Your task to perform on an android device: What's the weather going to be this weekend? Image 0: 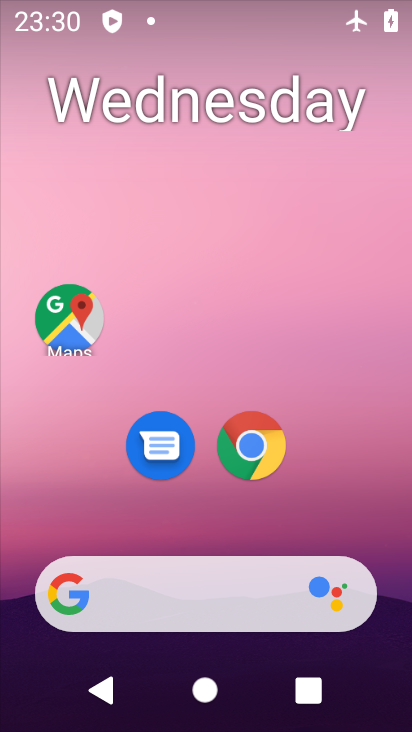
Step 0: click (216, 103)
Your task to perform on an android device: What's the weather going to be this weekend? Image 1: 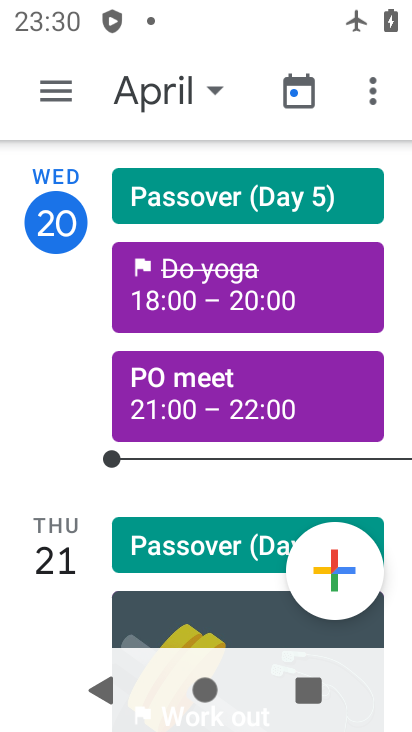
Step 1: press home button
Your task to perform on an android device: What's the weather going to be this weekend? Image 2: 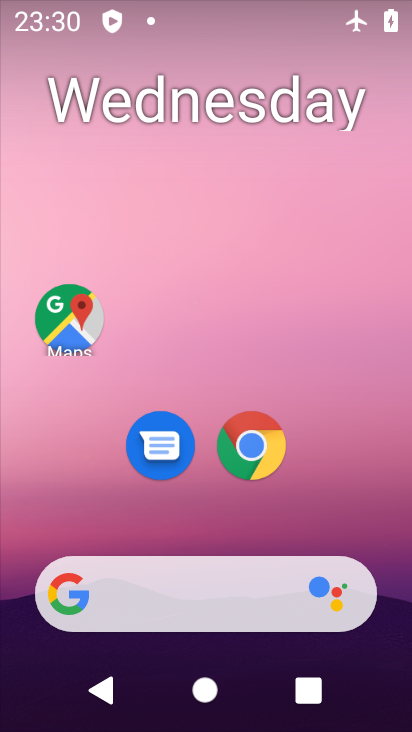
Step 2: click (172, 594)
Your task to perform on an android device: What's the weather going to be this weekend? Image 3: 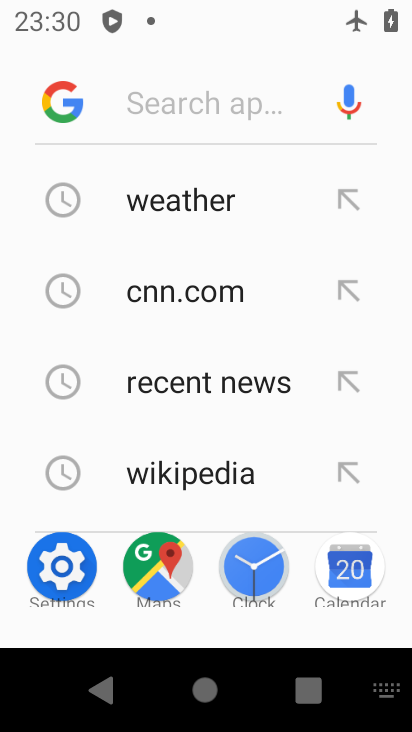
Step 3: click (161, 208)
Your task to perform on an android device: What's the weather going to be this weekend? Image 4: 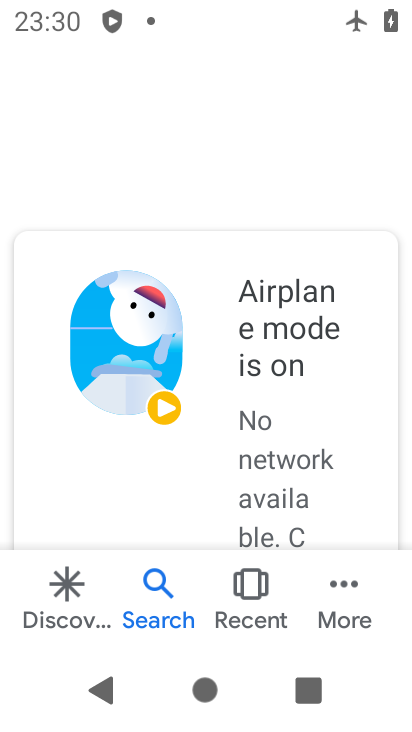
Step 4: drag from (332, 44) to (257, 628)
Your task to perform on an android device: What's the weather going to be this weekend? Image 5: 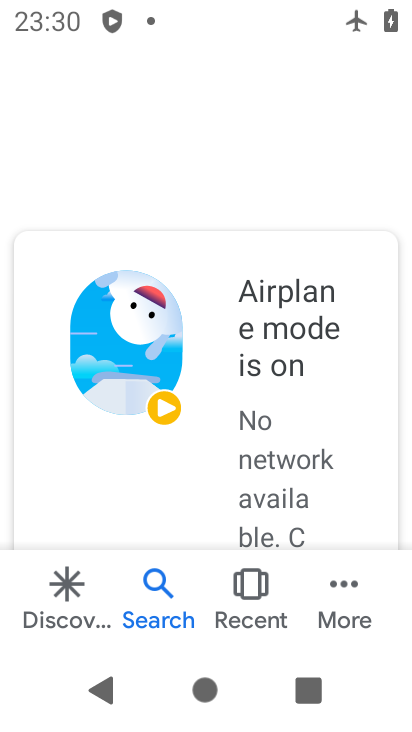
Step 5: drag from (283, 1) to (222, 467)
Your task to perform on an android device: What's the weather going to be this weekend? Image 6: 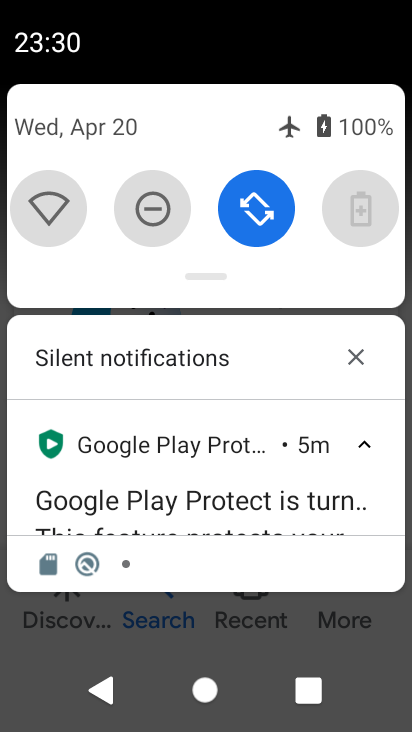
Step 6: drag from (203, 300) to (213, 723)
Your task to perform on an android device: What's the weather going to be this weekend? Image 7: 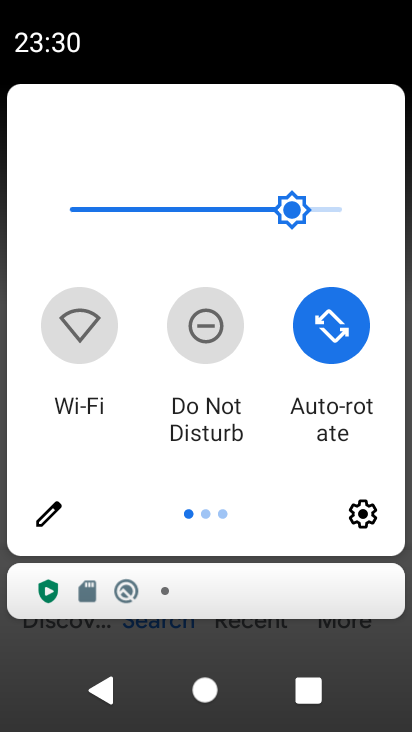
Step 7: drag from (323, 319) to (44, 309)
Your task to perform on an android device: What's the weather going to be this weekend? Image 8: 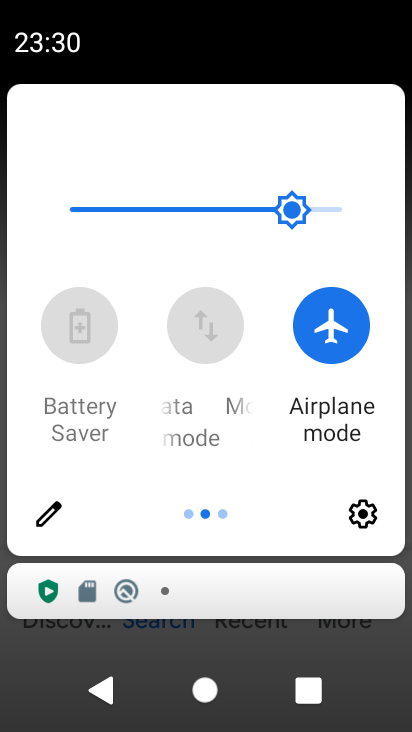
Step 8: click (338, 311)
Your task to perform on an android device: What's the weather going to be this weekend? Image 9: 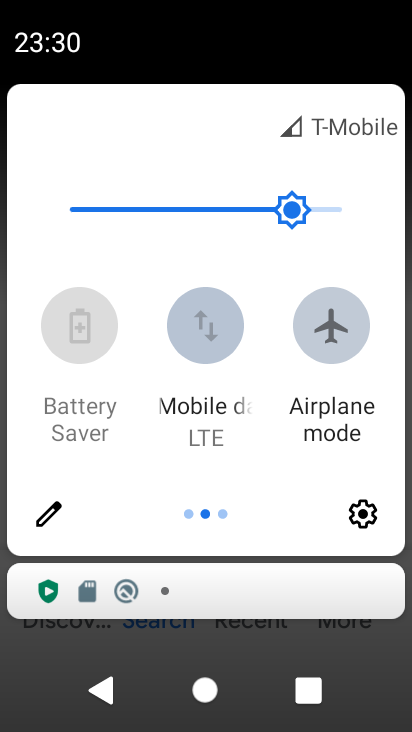
Step 9: click (70, 654)
Your task to perform on an android device: What's the weather going to be this weekend? Image 10: 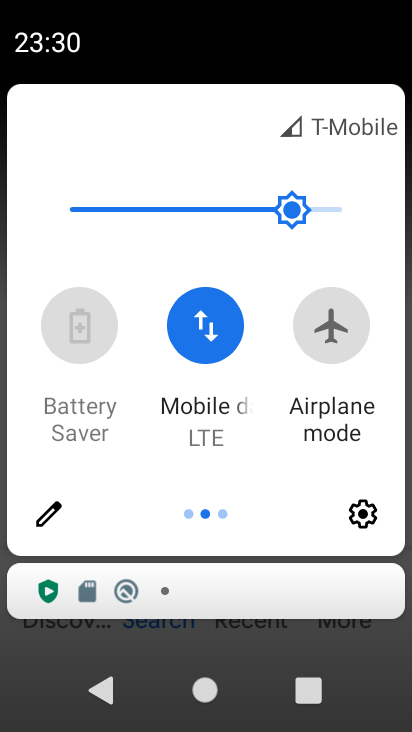
Step 10: click (45, 670)
Your task to perform on an android device: What's the weather going to be this weekend? Image 11: 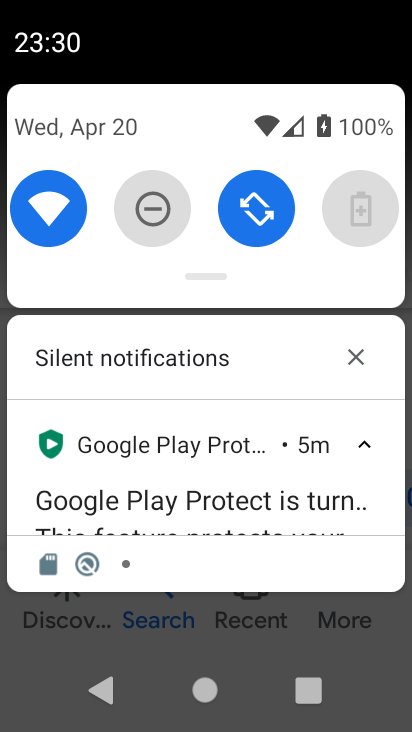
Step 11: press back button
Your task to perform on an android device: What's the weather going to be this weekend? Image 12: 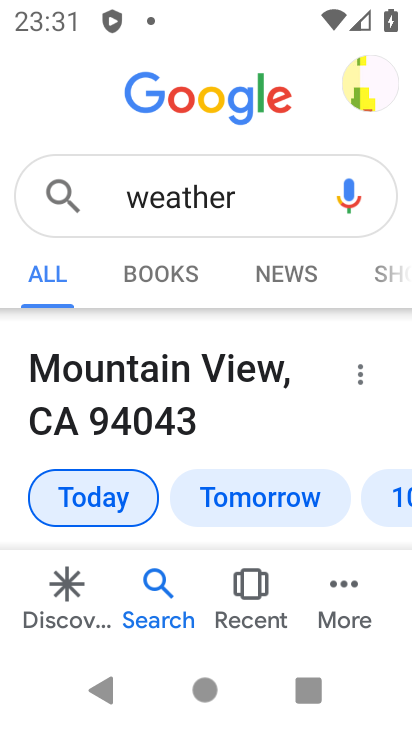
Step 12: click (385, 494)
Your task to perform on an android device: What's the weather going to be this weekend? Image 13: 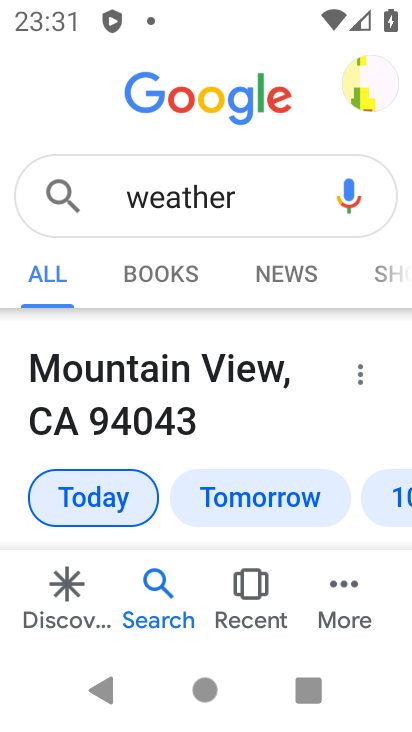
Step 13: click (395, 496)
Your task to perform on an android device: What's the weather going to be this weekend? Image 14: 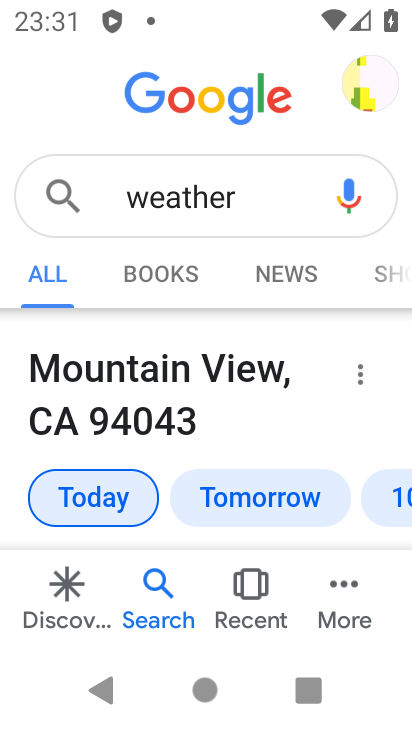
Step 14: drag from (196, 537) to (262, 178)
Your task to perform on an android device: What's the weather going to be this weekend? Image 15: 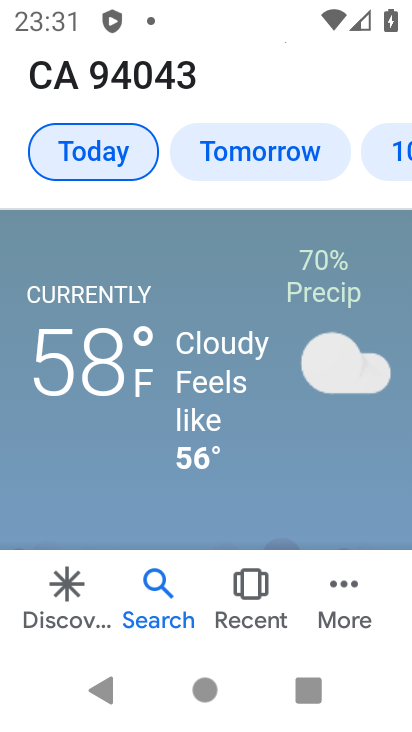
Step 15: click (398, 132)
Your task to perform on an android device: What's the weather going to be this weekend? Image 16: 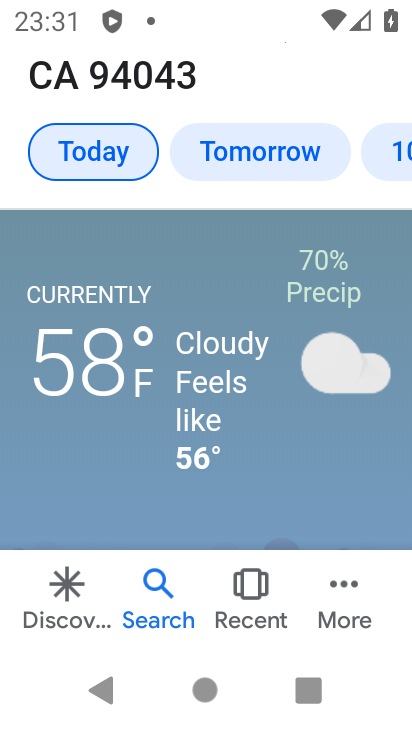
Step 16: click (400, 140)
Your task to perform on an android device: What's the weather going to be this weekend? Image 17: 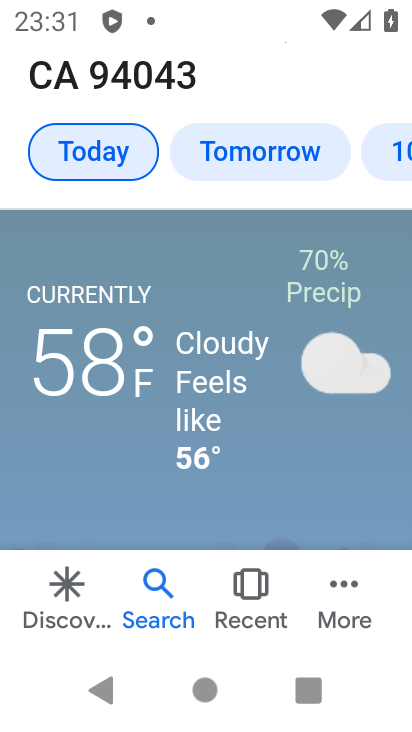
Step 17: click (400, 140)
Your task to perform on an android device: What's the weather going to be this weekend? Image 18: 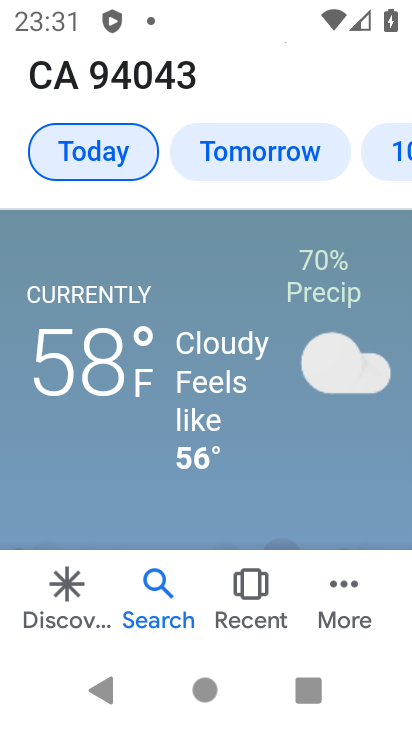
Step 18: click (229, 147)
Your task to perform on an android device: What's the weather going to be this weekend? Image 19: 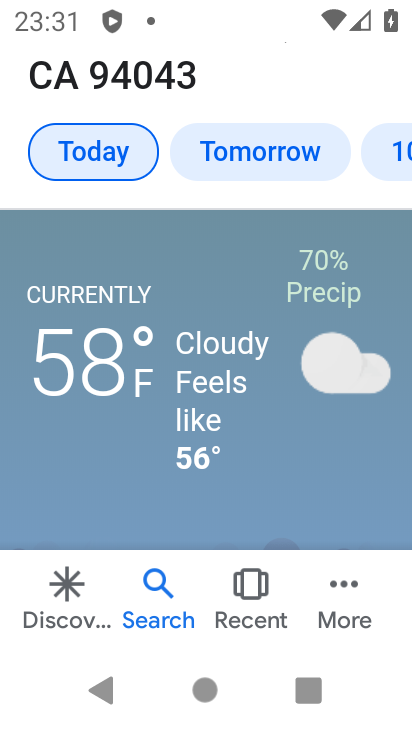
Step 19: click (232, 145)
Your task to perform on an android device: What's the weather going to be this weekend? Image 20: 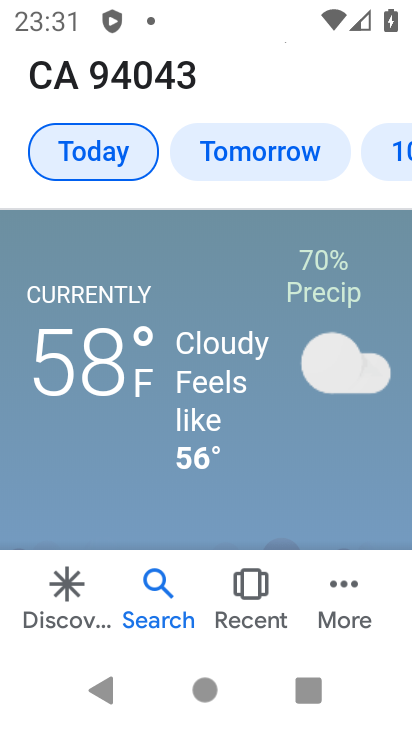
Step 20: click (390, 154)
Your task to perform on an android device: What's the weather going to be this weekend? Image 21: 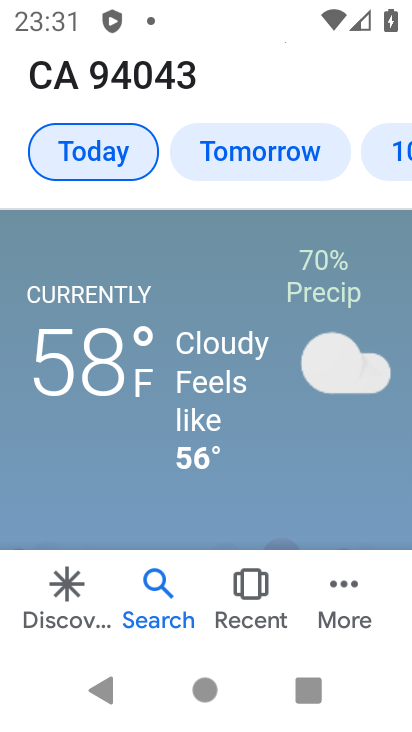
Step 21: click (382, 151)
Your task to perform on an android device: What's the weather going to be this weekend? Image 22: 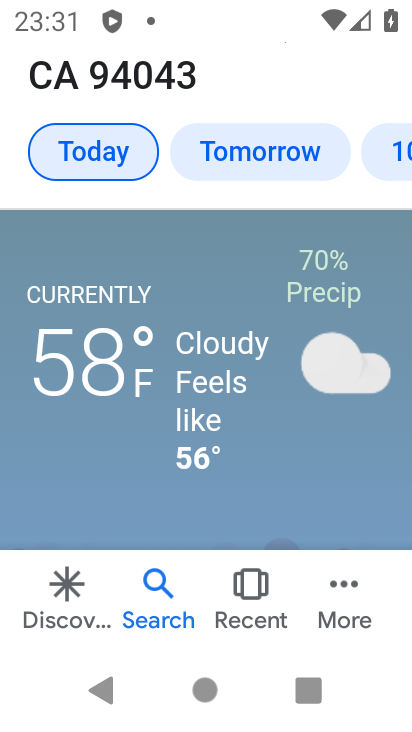
Step 22: task complete